Your task to perform on an android device: Go to Reddit.com Image 0: 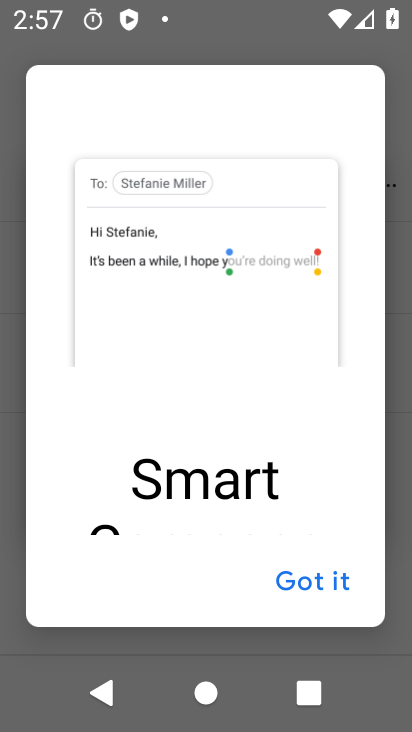
Step 0: press home button
Your task to perform on an android device: Go to Reddit.com Image 1: 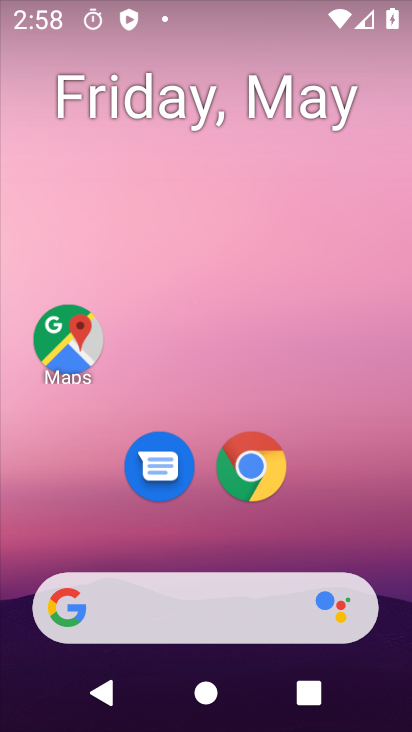
Step 1: click (140, 631)
Your task to perform on an android device: Go to Reddit.com Image 2: 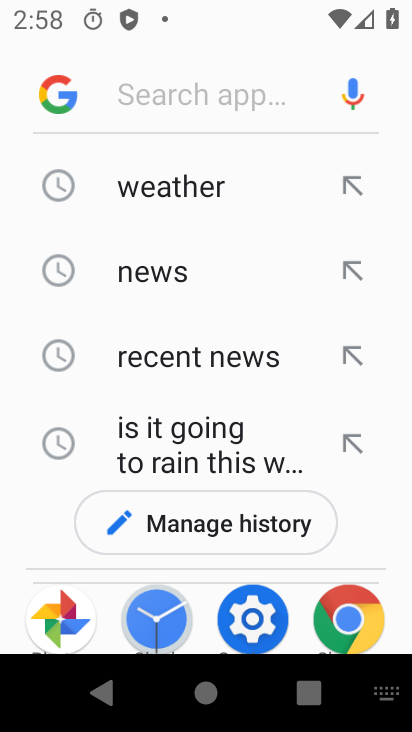
Step 2: type "reddit"
Your task to perform on an android device: Go to Reddit.com Image 3: 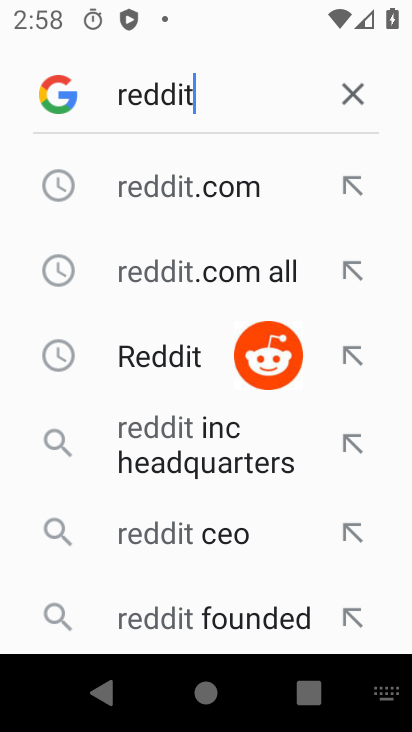
Step 3: click (166, 186)
Your task to perform on an android device: Go to Reddit.com Image 4: 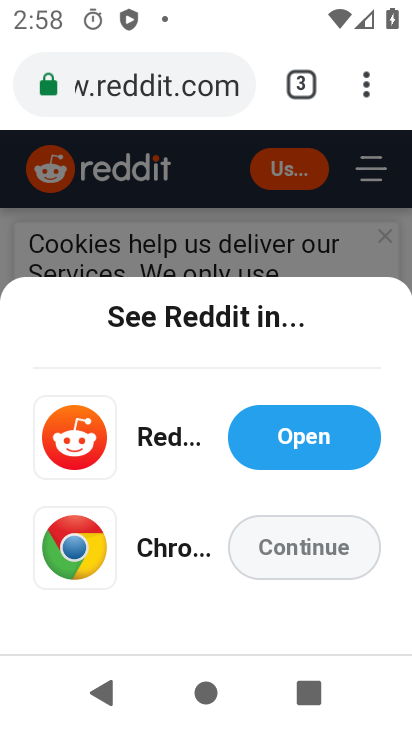
Step 4: click (294, 544)
Your task to perform on an android device: Go to Reddit.com Image 5: 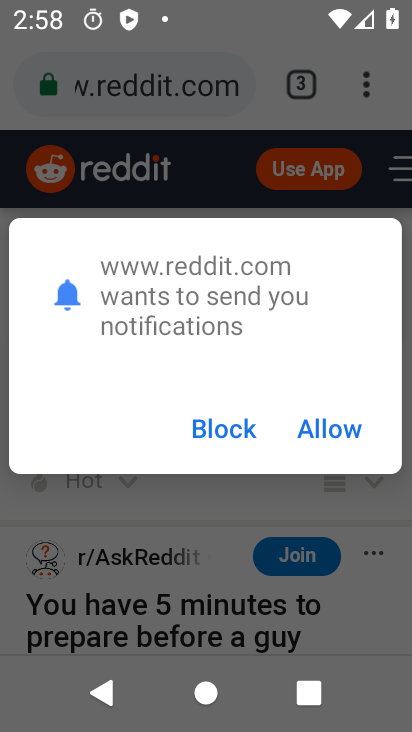
Step 5: click (309, 419)
Your task to perform on an android device: Go to Reddit.com Image 6: 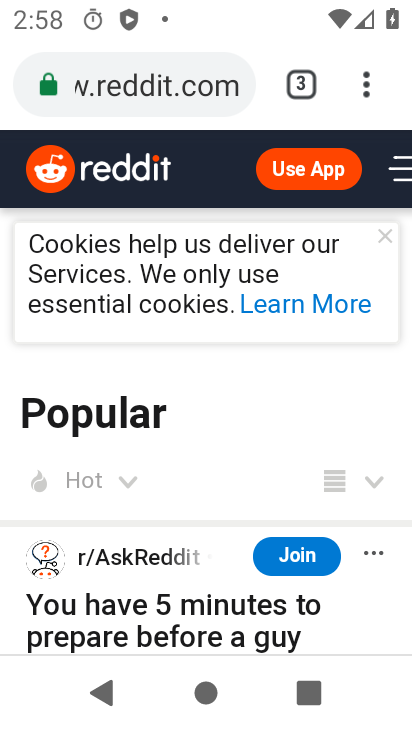
Step 6: task complete